Your task to perform on an android device: Go to sound settings Image 0: 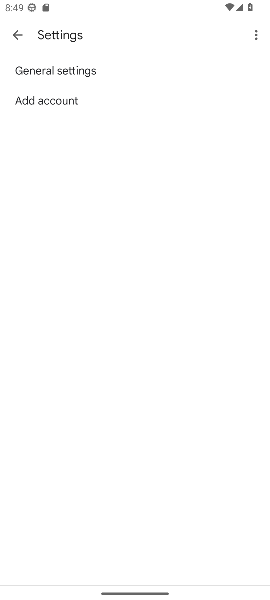
Step 0: press home button
Your task to perform on an android device: Go to sound settings Image 1: 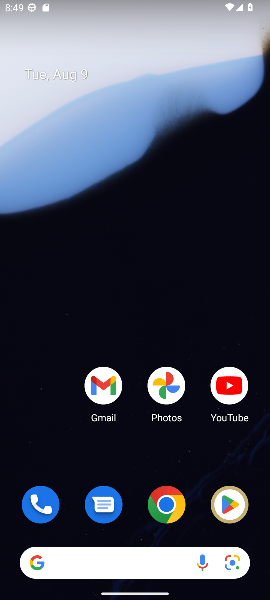
Step 1: drag from (133, 471) to (106, 113)
Your task to perform on an android device: Go to sound settings Image 2: 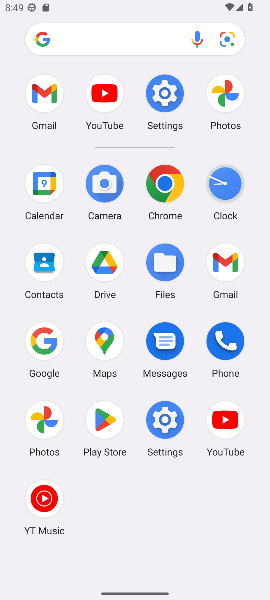
Step 2: click (166, 416)
Your task to perform on an android device: Go to sound settings Image 3: 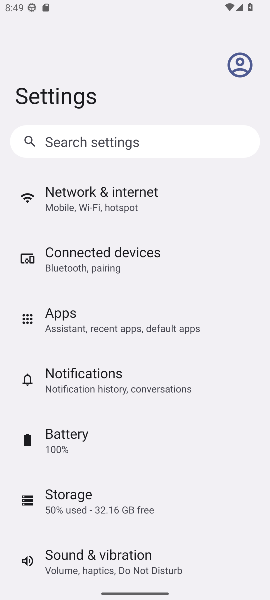
Step 3: click (101, 550)
Your task to perform on an android device: Go to sound settings Image 4: 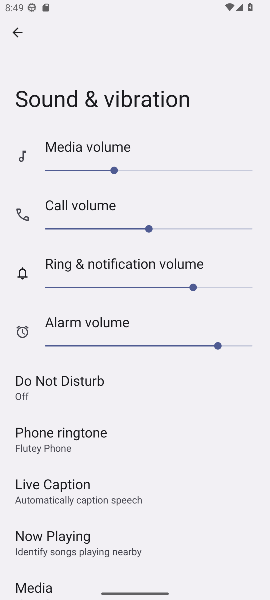
Step 4: task complete